Your task to perform on an android device: set default search engine in the chrome app Image 0: 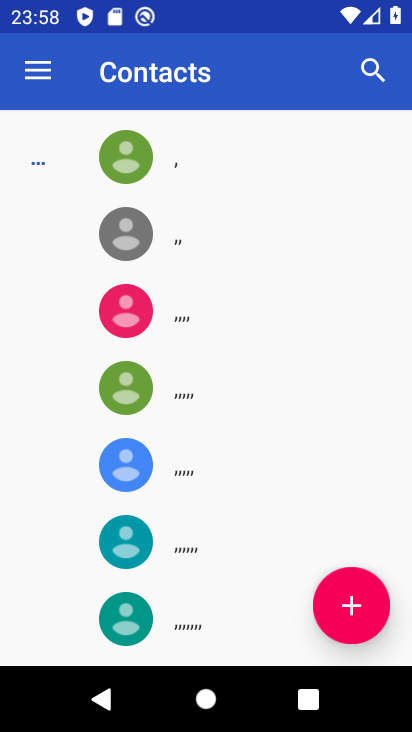
Step 0: press home button
Your task to perform on an android device: set default search engine in the chrome app Image 1: 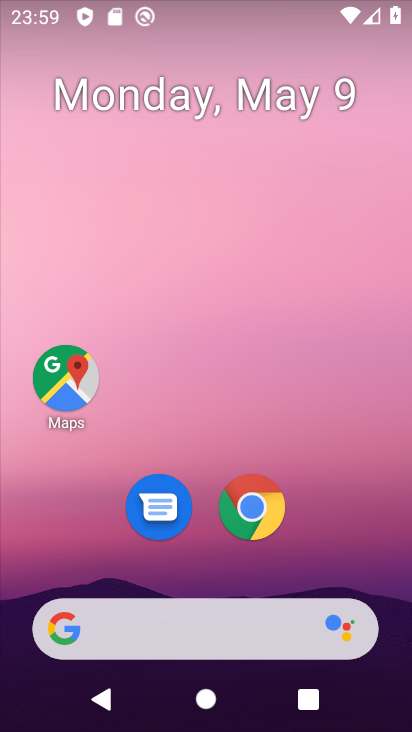
Step 1: click (265, 516)
Your task to perform on an android device: set default search engine in the chrome app Image 2: 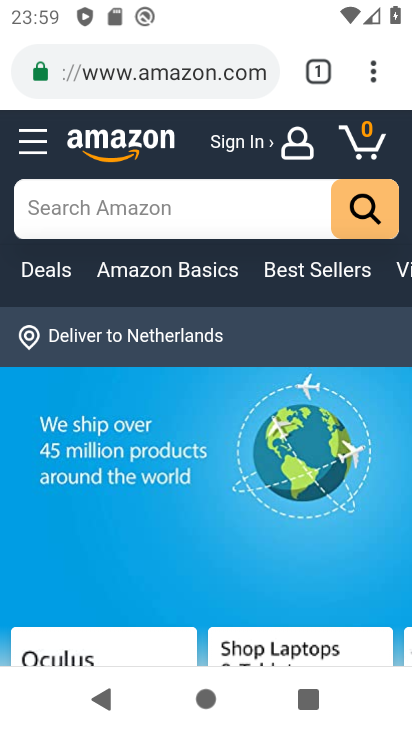
Step 2: click (384, 72)
Your task to perform on an android device: set default search engine in the chrome app Image 3: 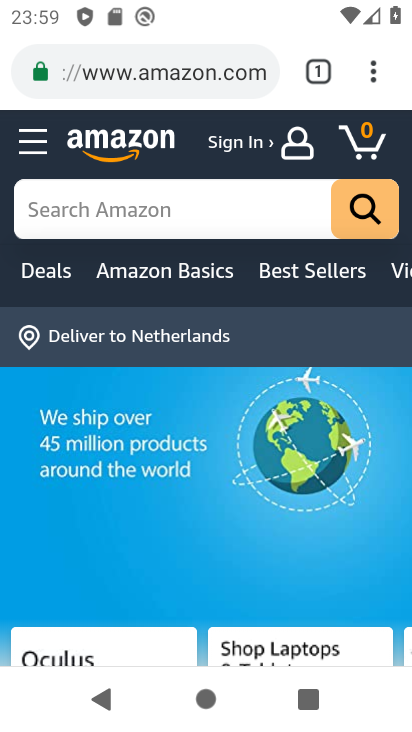
Step 3: click (384, 97)
Your task to perform on an android device: set default search engine in the chrome app Image 4: 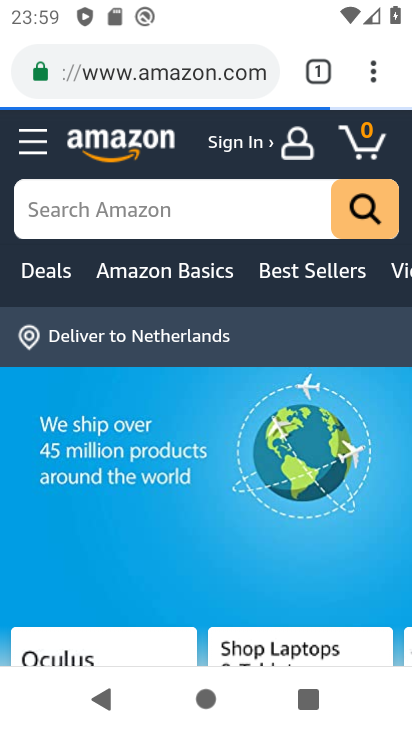
Step 4: click (366, 83)
Your task to perform on an android device: set default search engine in the chrome app Image 5: 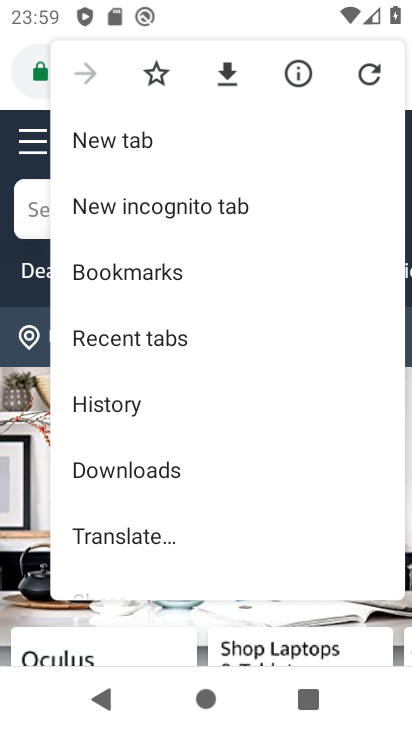
Step 5: drag from (143, 429) to (126, 298)
Your task to perform on an android device: set default search engine in the chrome app Image 6: 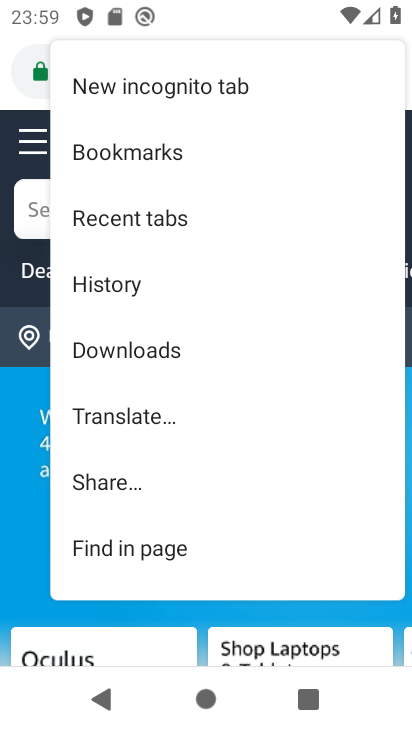
Step 6: drag from (139, 489) to (128, 339)
Your task to perform on an android device: set default search engine in the chrome app Image 7: 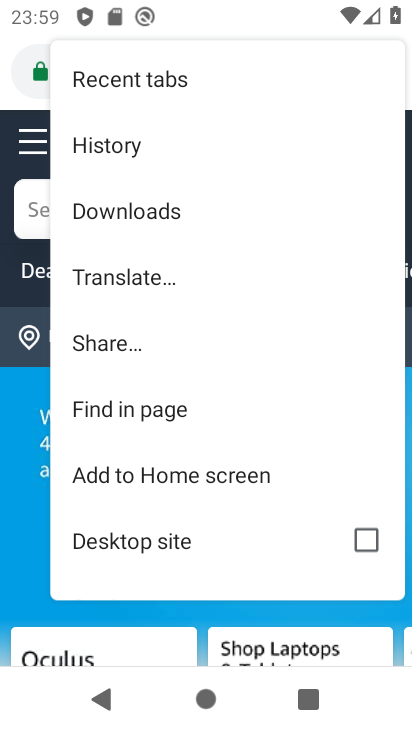
Step 7: click (126, 345)
Your task to perform on an android device: set default search engine in the chrome app Image 8: 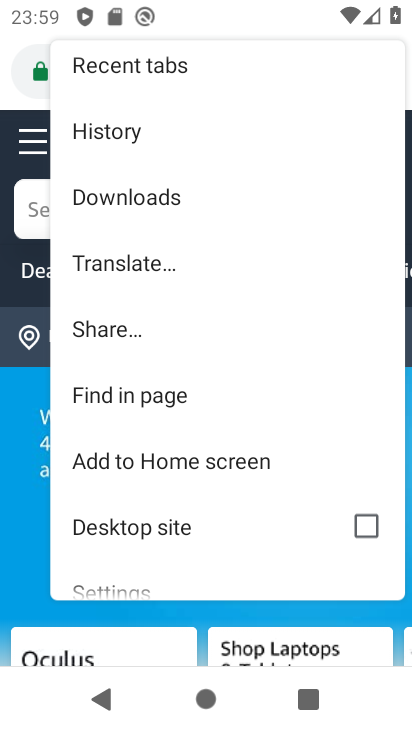
Step 8: drag from (147, 512) to (127, 218)
Your task to perform on an android device: set default search engine in the chrome app Image 9: 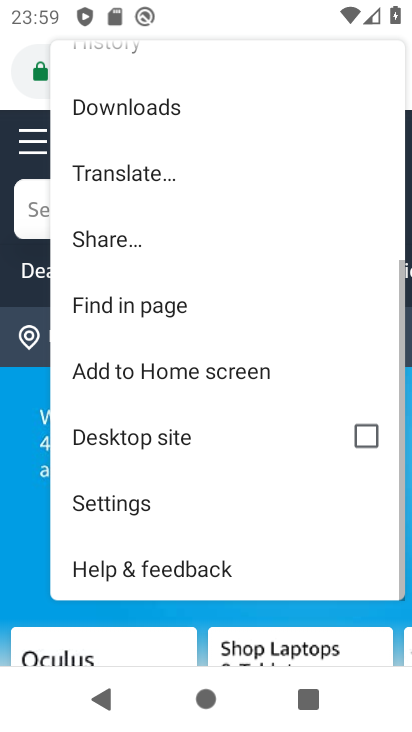
Step 9: click (136, 503)
Your task to perform on an android device: set default search engine in the chrome app Image 10: 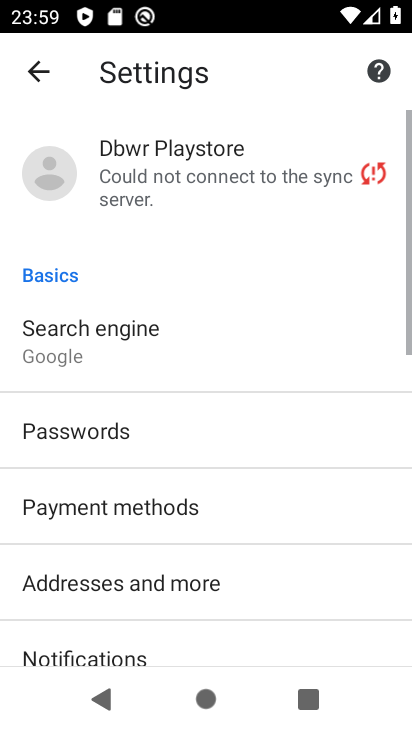
Step 10: click (132, 348)
Your task to perform on an android device: set default search engine in the chrome app Image 11: 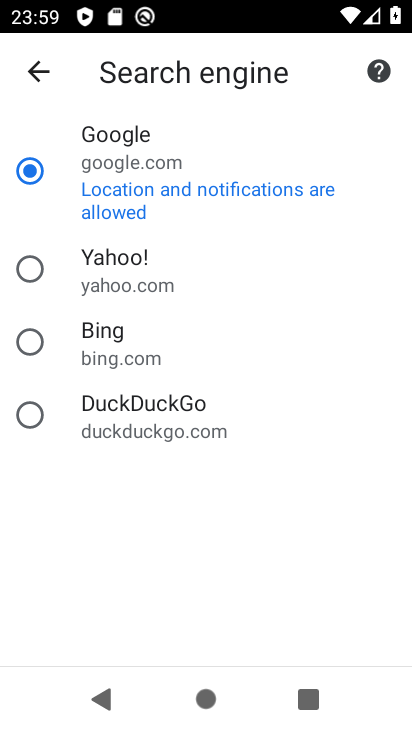
Step 11: click (130, 348)
Your task to perform on an android device: set default search engine in the chrome app Image 12: 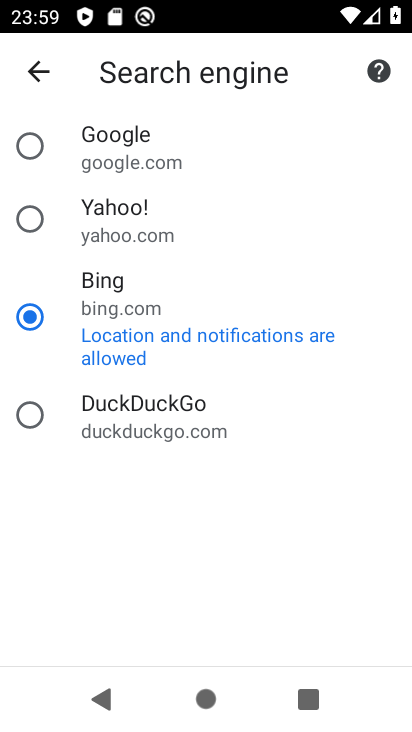
Step 12: task complete